Your task to perform on an android device: change the clock display to show seconds Image 0: 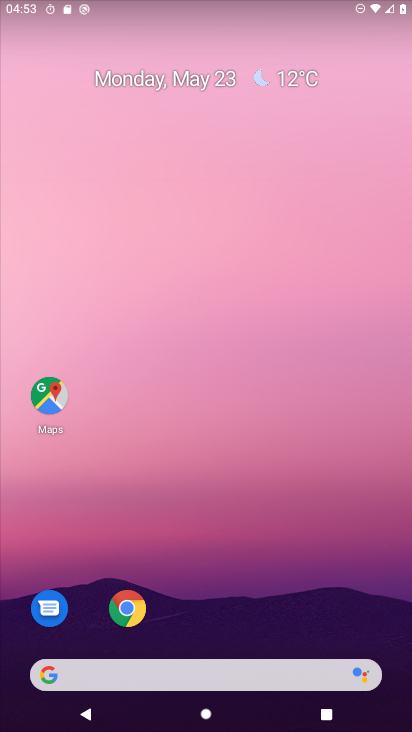
Step 0: drag from (294, 534) to (191, 1)
Your task to perform on an android device: change the clock display to show seconds Image 1: 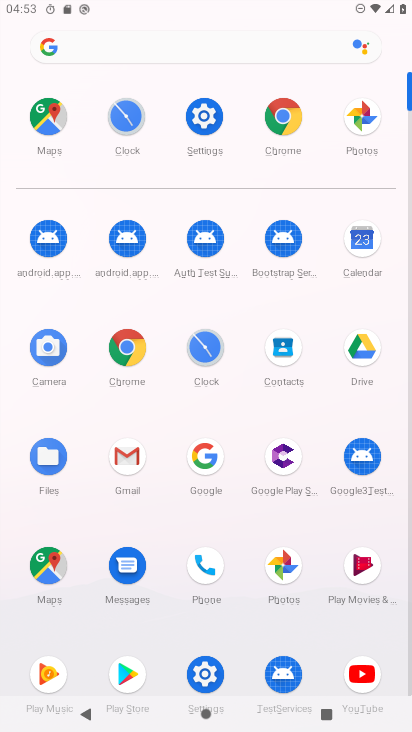
Step 1: click (121, 121)
Your task to perform on an android device: change the clock display to show seconds Image 2: 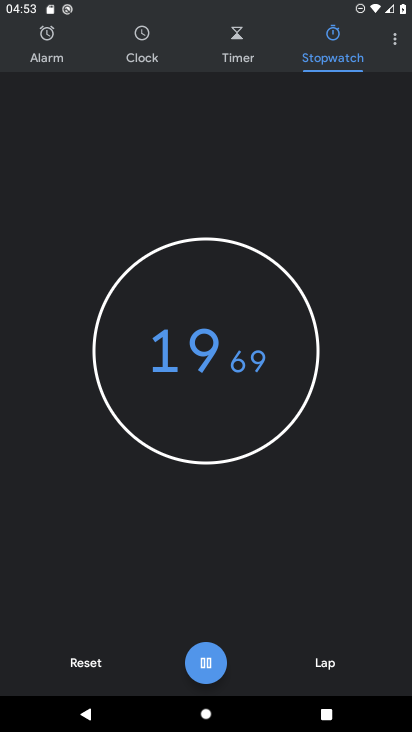
Step 2: click (399, 44)
Your task to perform on an android device: change the clock display to show seconds Image 3: 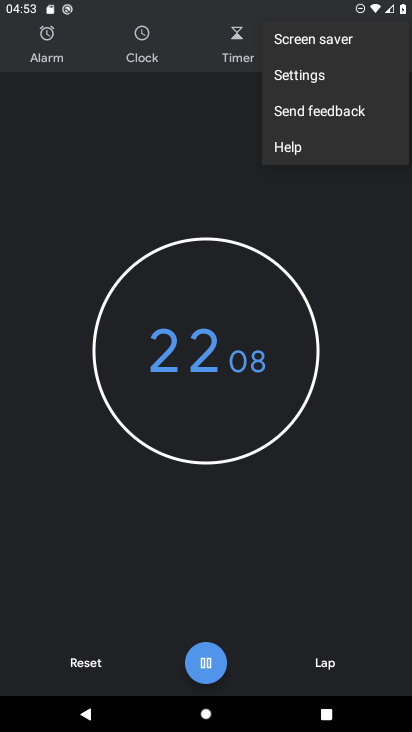
Step 3: click (289, 74)
Your task to perform on an android device: change the clock display to show seconds Image 4: 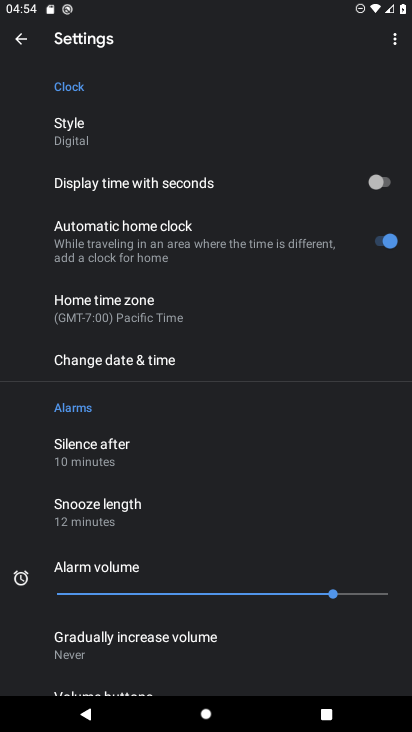
Step 4: click (389, 184)
Your task to perform on an android device: change the clock display to show seconds Image 5: 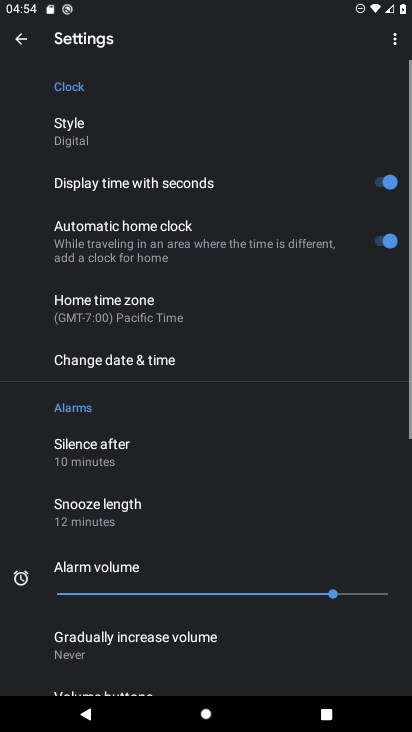
Step 5: task complete